Your task to perform on an android device: Open accessibility settings Image 0: 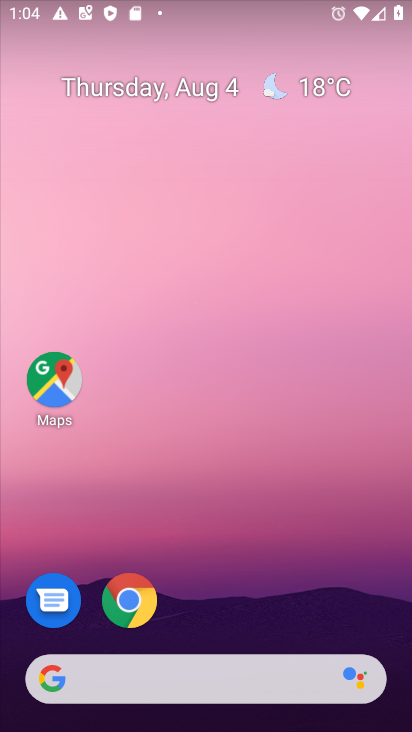
Step 0: drag from (177, 582) to (294, 30)
Your task to perform on an android device: Open accessibility settings Image 1: 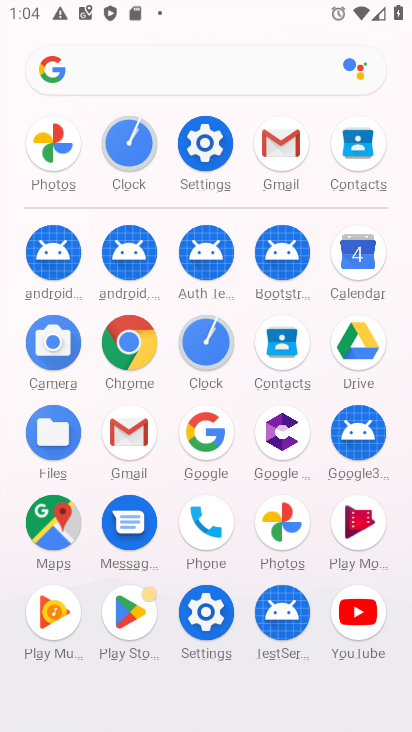
Step 1: click (198, 150)
Your task to perform on an android device: Open accessibility settings Image 2: 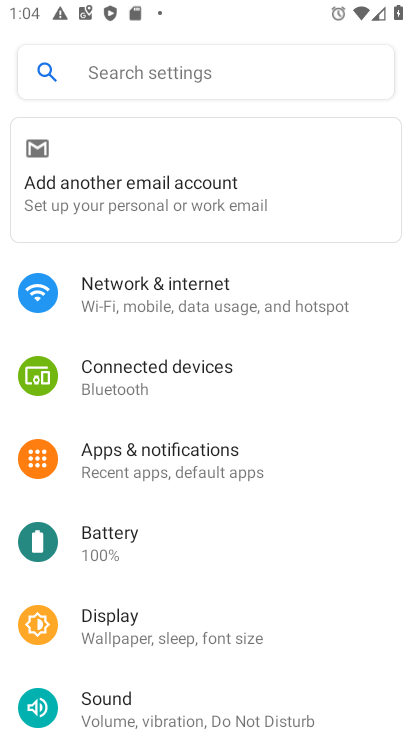
Step 2: drag from (209, 678) to (386, 17)
Your task to perform on an android device: Open accessibility settings Image 3: 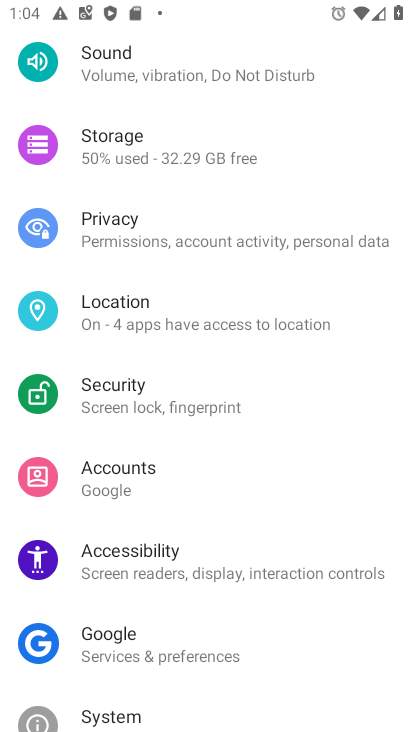
Step 3: click (184, 568)
Your task to perform on an android device: Open accessibility settings Image 4: 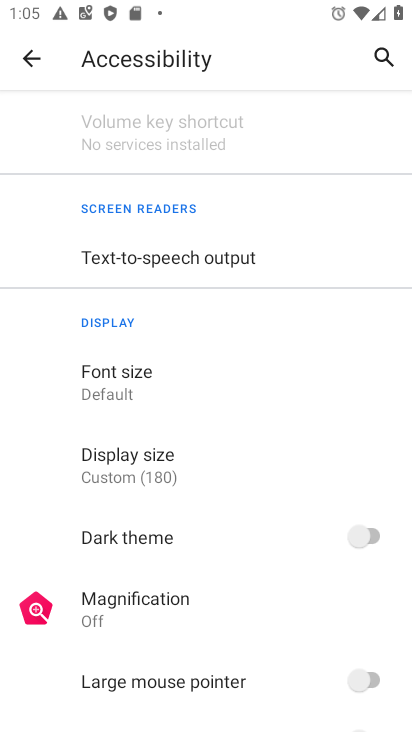
Step 4: task complete